Your task to perform on an android device: turn on sleep mode Image 0: 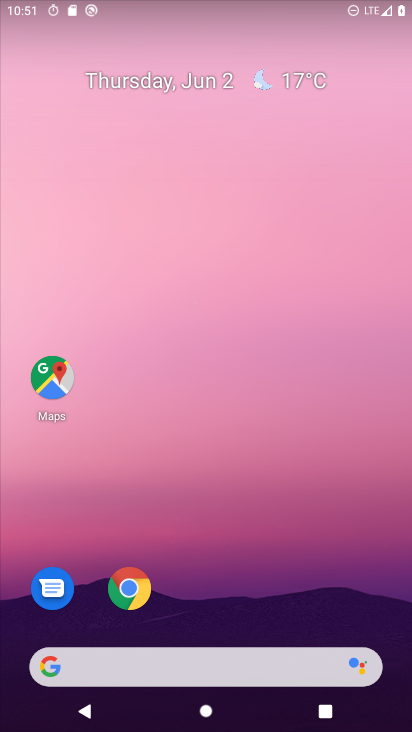
Step 0: drag from (251, 565) to (292, 240)
Your task to perform on an android device: turn on sleep mode Image 1: 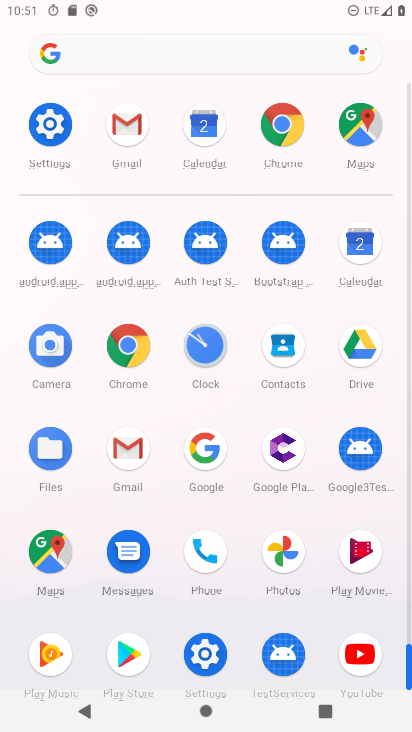
Step 1: click (55, 152)
Your task to perform on an android device: turn on sleep mode Image 2: 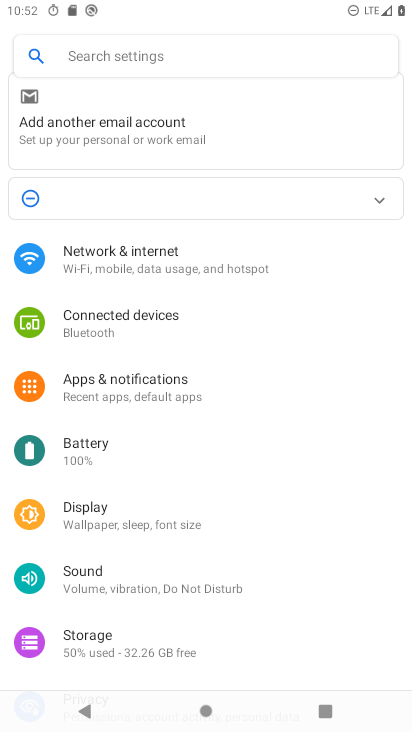
Step 2: drag from (204, 510) to (247, 223)
Your task to perform on an android device: turn on sleep mode Image 3: 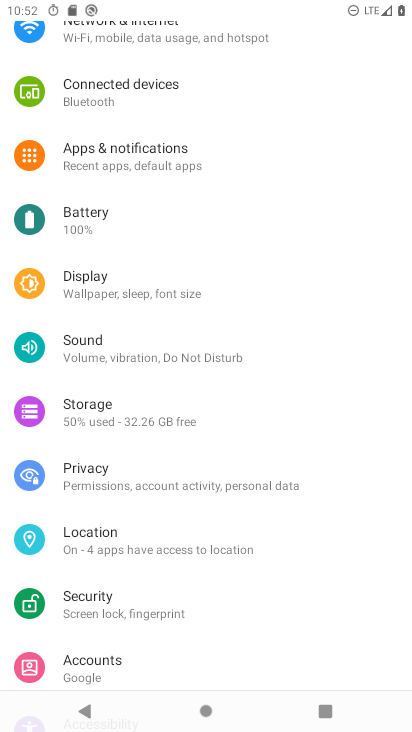
Step 3: click (136, 290)
Your task to perform on an android device: turn on sleep mode Image 4: 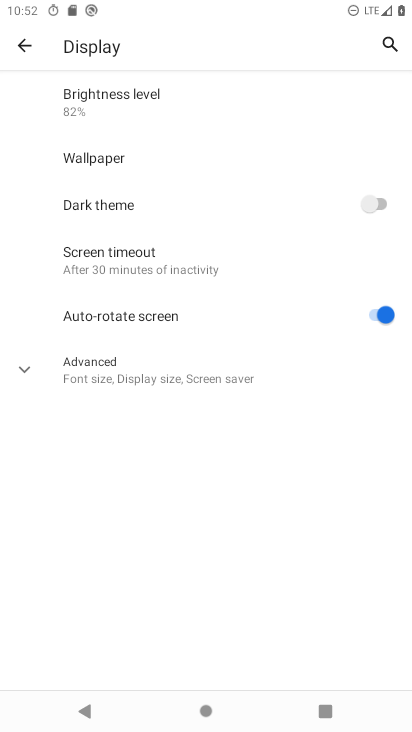
Step 4: click (182, 382)
Your task to perform on an android device: turn on sleep mode Image 5: 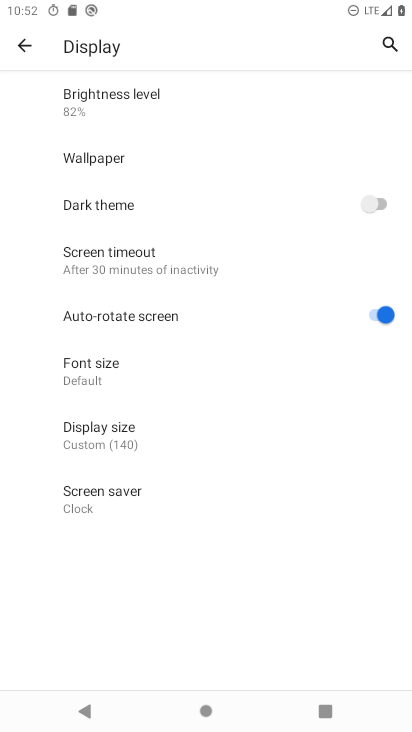
Step 5: task complete